Your task to perform on an android device: Open Yahoo.com Image 0: 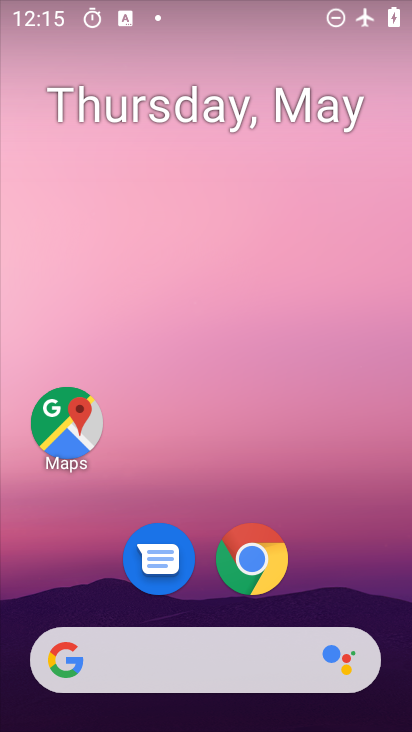
Step 0: drag from (252, 667) to (271, 152)
Your task to perform on an android device: Open Yahoo.com Image 1: 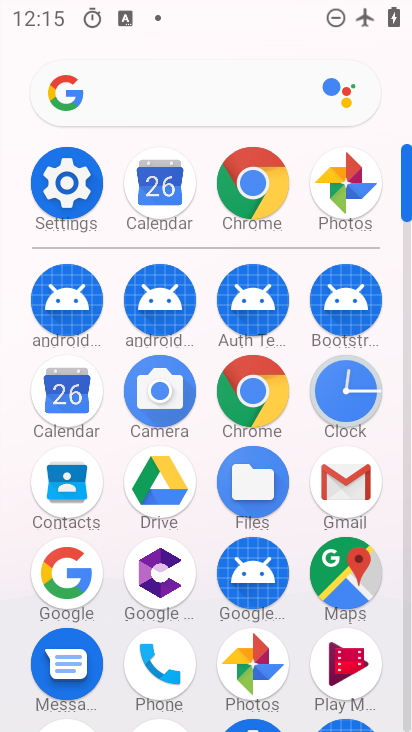
Step 1: click (264, 203)
Your task to perform on an android device: Open Yahoo.com Image 2: 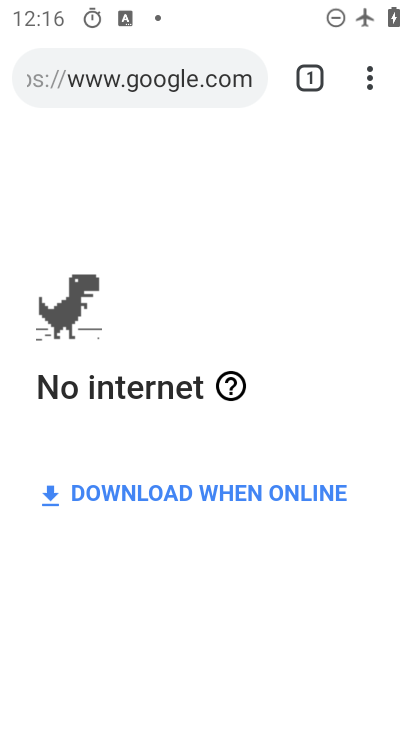
Step 2: click (222, 76)
Your task to perform on an android device: Open Yahoo.com Image 3: 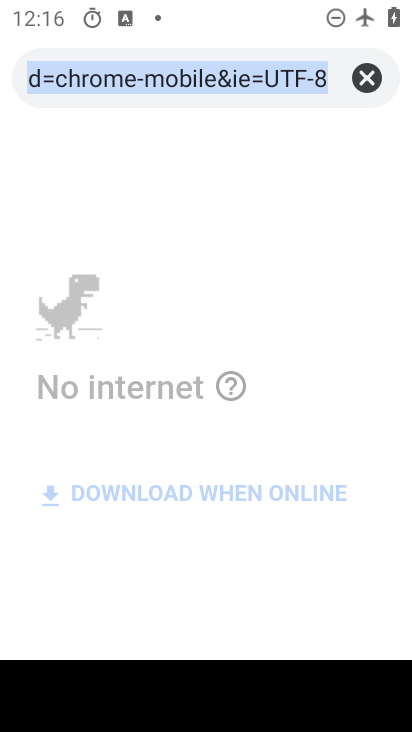
Step 3: type "yahoo"
Your task to perform on an android device: Open Yahoo.com Image 4: 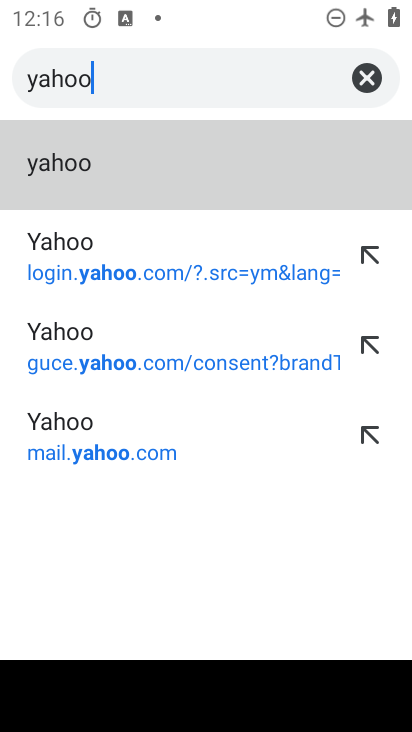
Step 4: click (280, 280)
Your task to perform on an android device: Open Yahoo.com Image 5: 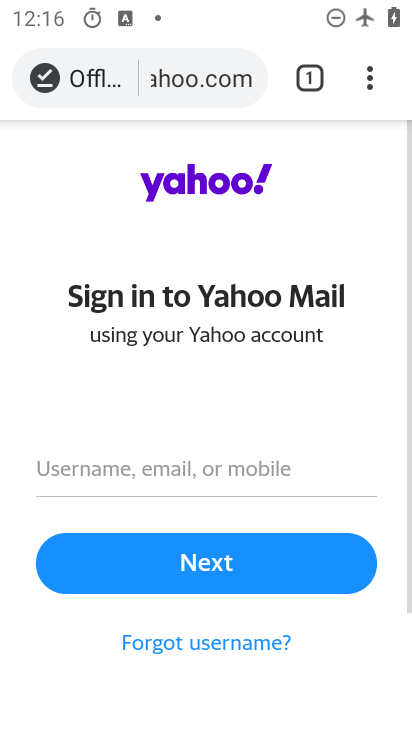
Step 5: task complete